Your task to perform on an android device: see tabs open on other devices in the chrome app Image 0: 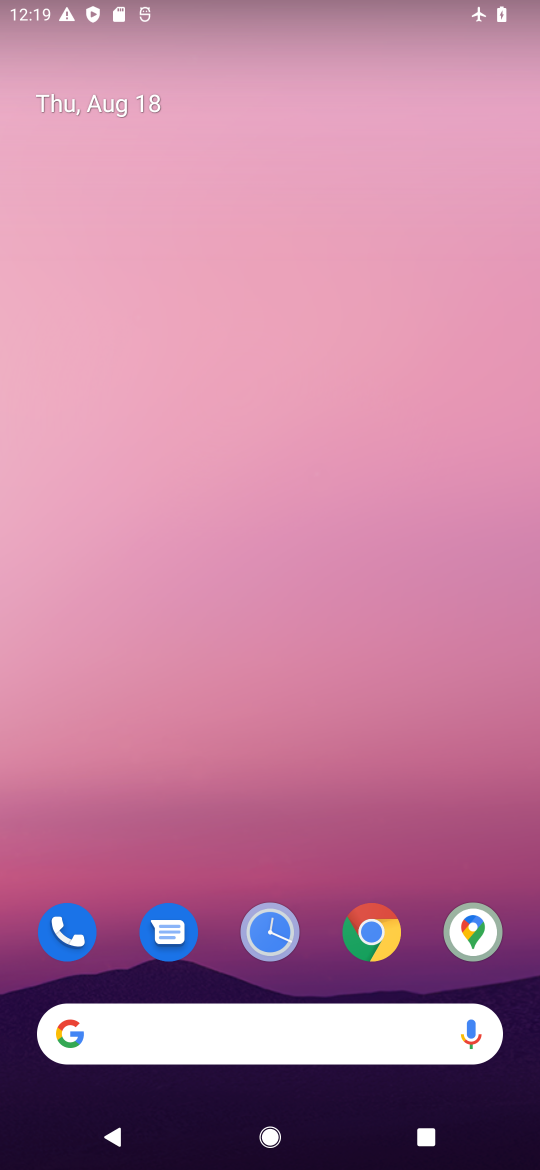
Step 0: click (377, 931)
Your task to perform on an android device: see tabs open on other devices in the chrome app Image 1: 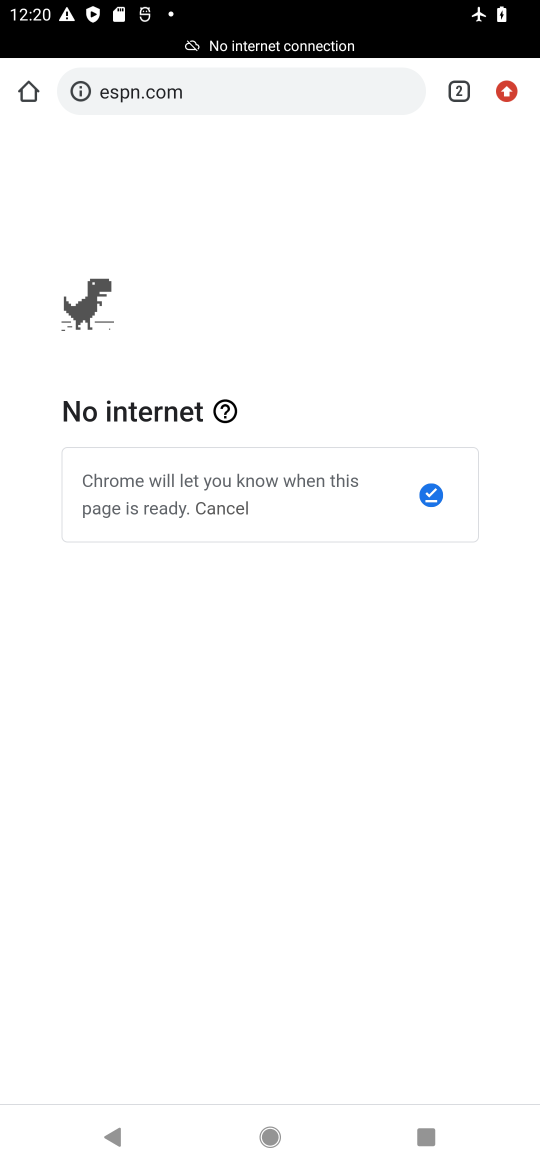
Step 1: click (504, 90)
Your task to perform on an android device: see tabs open on other devices in the chrome app Image 2: 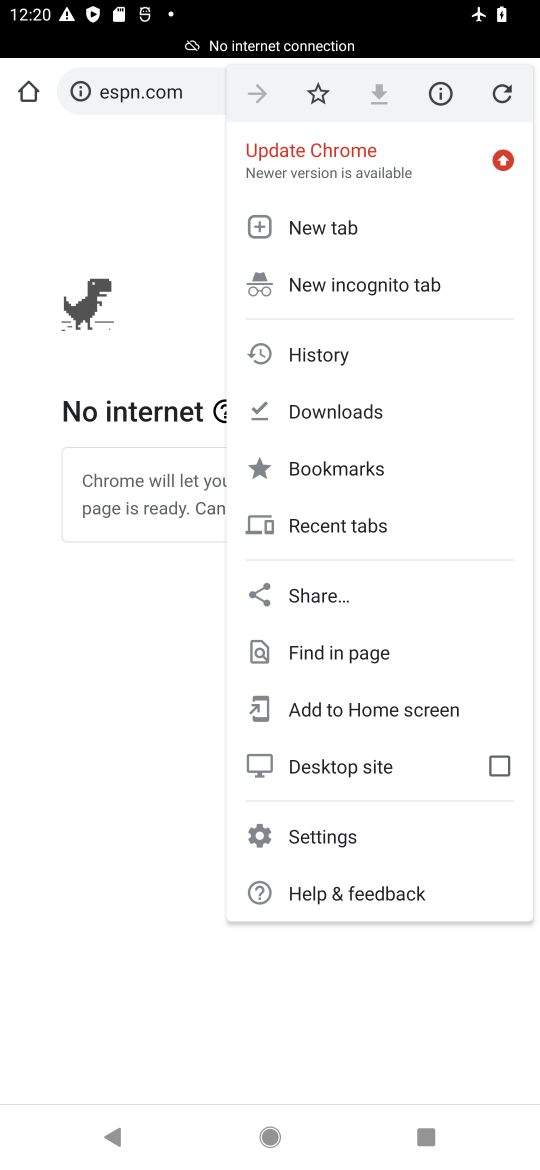
Step 2: click (323, 521)
Your task to perform on an android device: see tabs open on other devices in the chrome app Image 3: 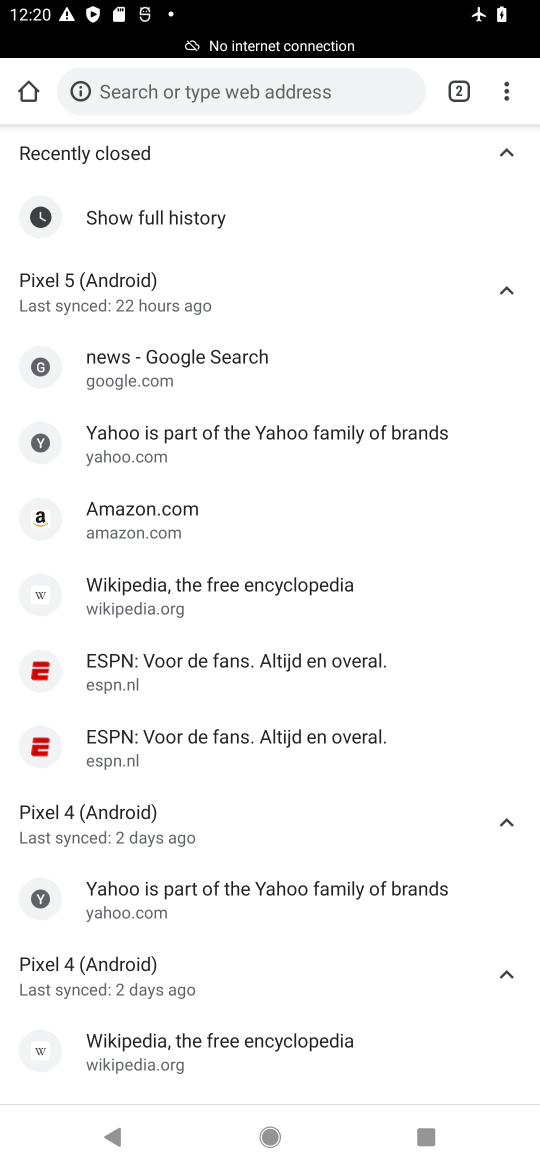
Step 3: task complete